Your task to perform on an android device: Open the stopwatch Image 0: 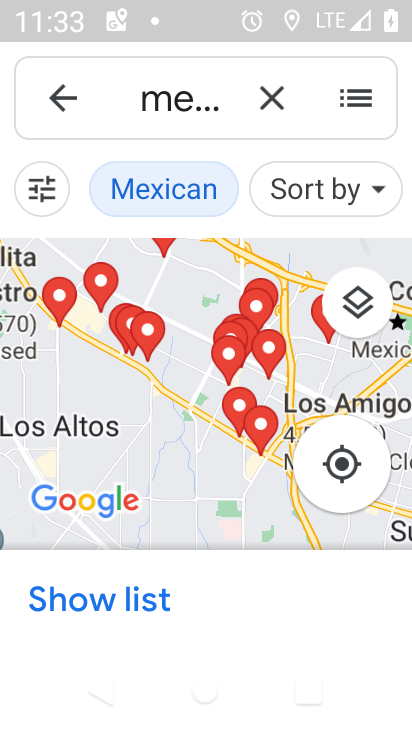
Step 0: press home button
Your task to perform on an android device: Open the stopwatch Image 1: 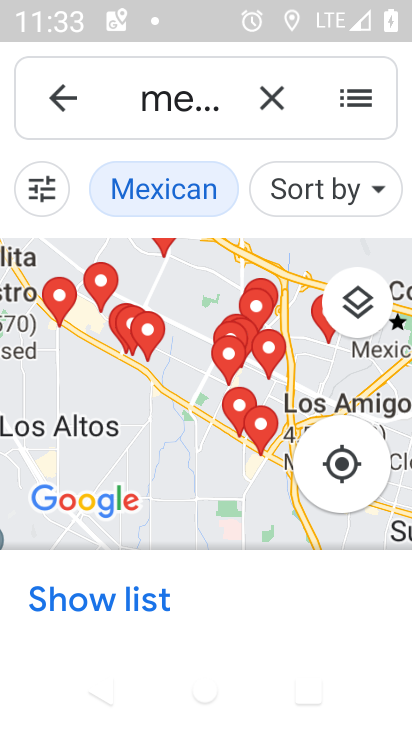
Step 1: drag from (170, 502) to (358, 3)
Your task to perform on an android device: Open the stopwatch Image 2: 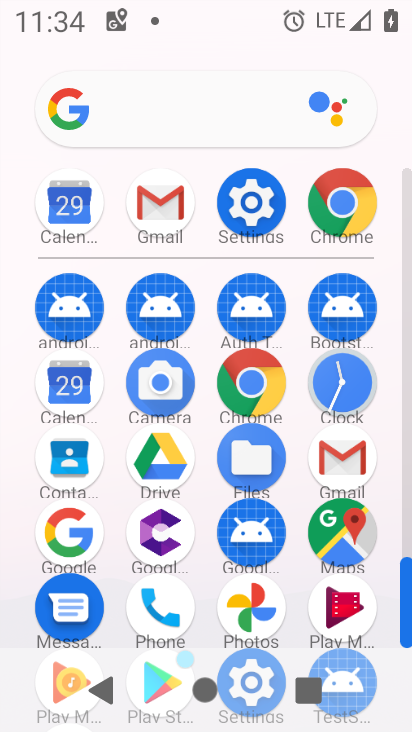
Step 2: click (328, 369)
Your task to perform on an android device: Open the stopwatch Image 3: 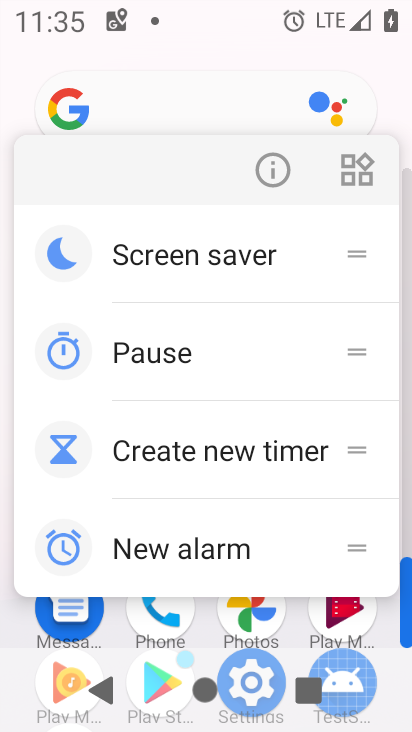
Step 3: click (279, 138)
Your task to perform on an android device: Open the stopwatch Image 4: 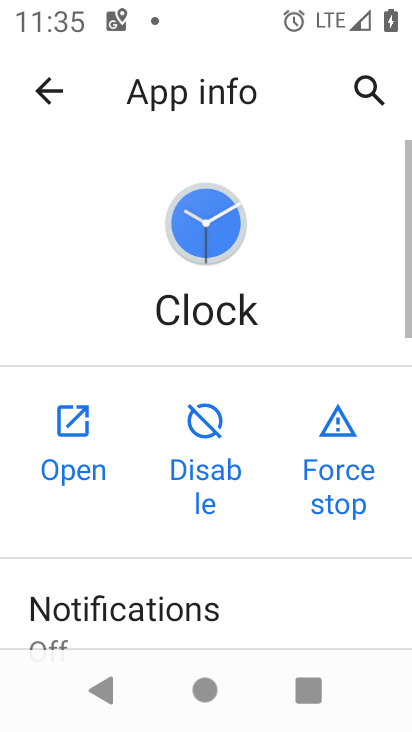
Step 4: click (63, 424)
Your task to perform on an android device: Open the stopwatch Image 5: 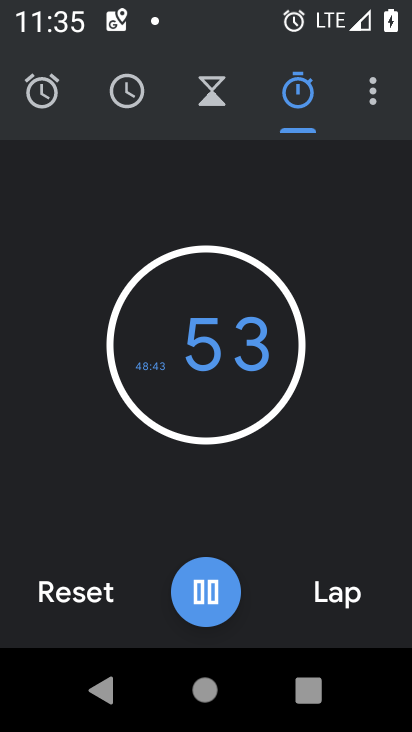
Step 5: click (62, 593)
Your task to perform on an android device: Open the stopwatch Image 6: 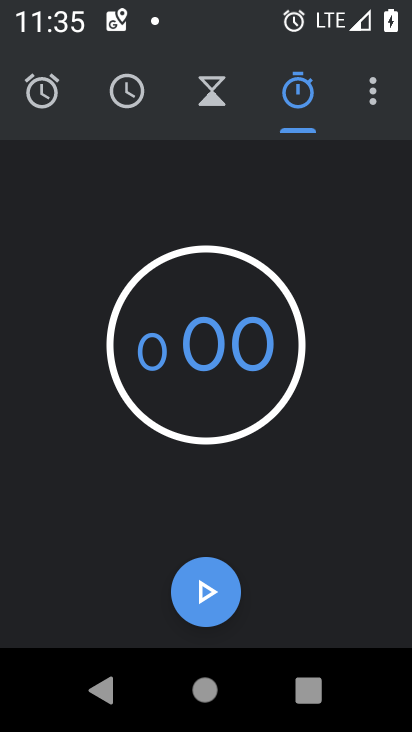
Step 6: click (193, 568)
Your task to perform on an android device: Open the stopwatch Image 7: 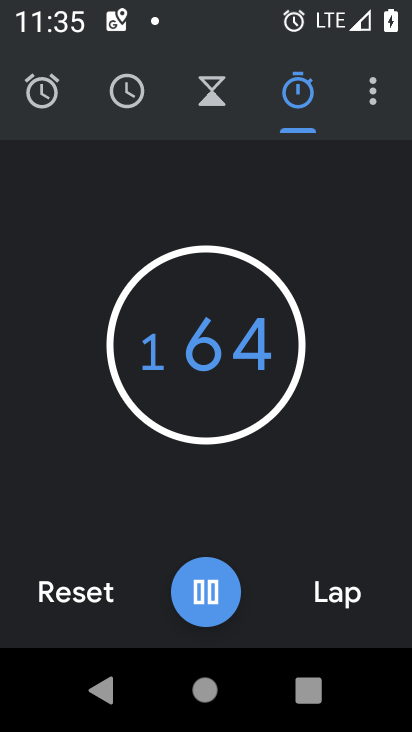
Step 7: task complete